Your task to perform on an android device: turn on bluetooth scan Image 0: 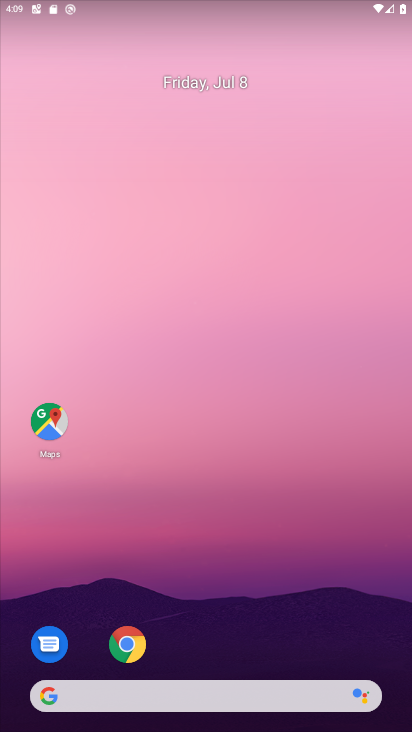
Step 0: drag from (343, 640) to (304, 91)
Your task to perform on an android device: turn on bluetooth scan Image 1: 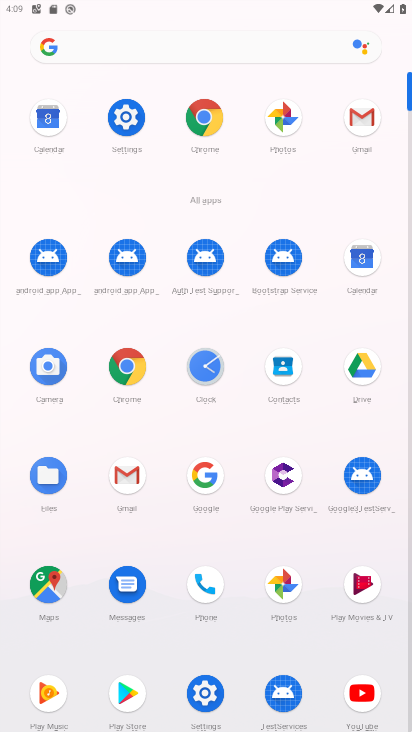
Step 1: click (205, 693)
Your task to perform on an android device: turn on bluetooth scan Image 2: 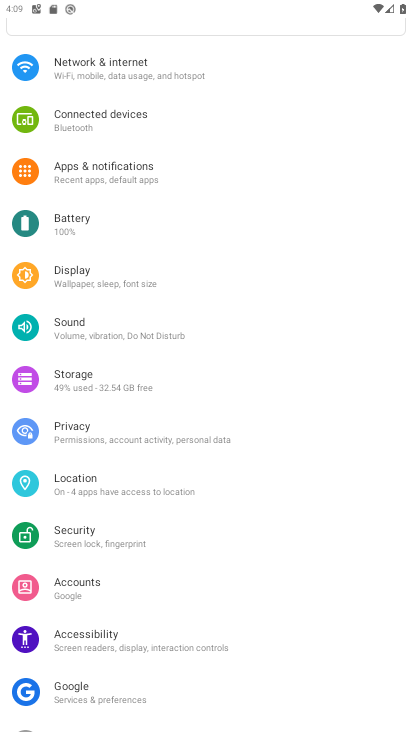
Step 2: click (82, 471)
Your task to perform on an android device: turn on bluetooth scan Image 3: 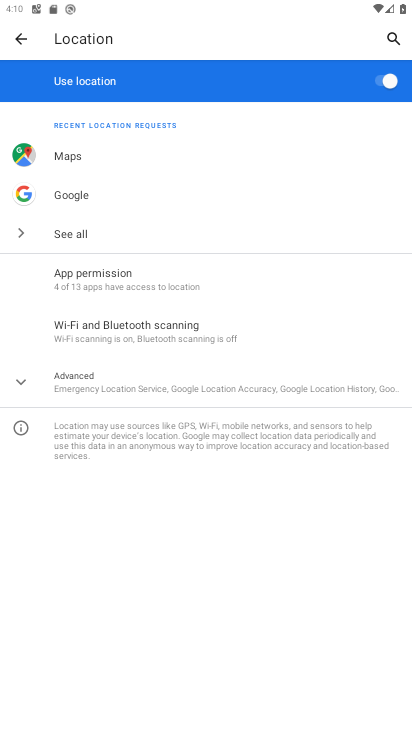
Step 3: click (116, 322)
Your task to perform on an android device: turn on bluetooth scan Image 4: 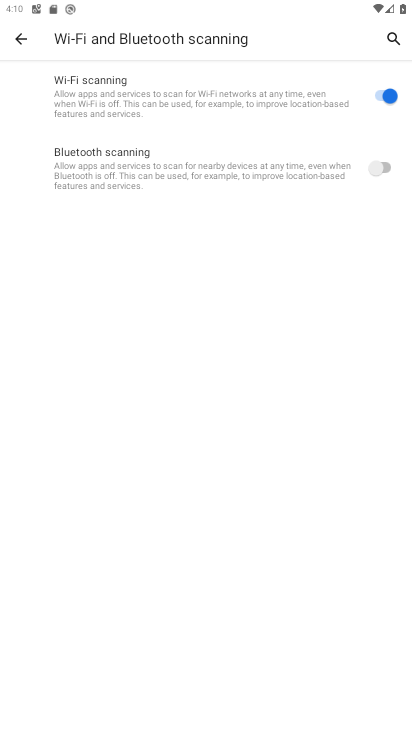
Step 4: click (384, 170)
Your task to perform on an android device: turn on bluetooth scan Image 5: 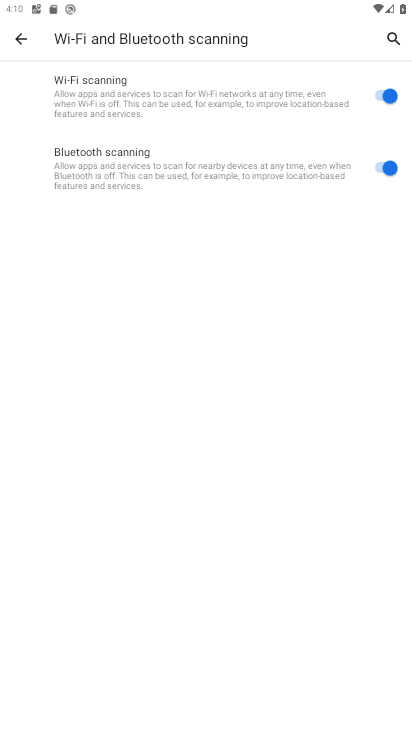
Step 5: task complete